Your task to perform on an android device: show emergency info Image 0: 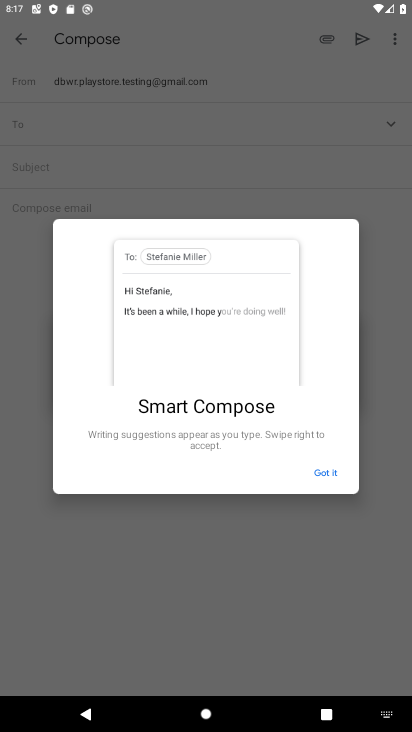
Step 0: press home button
Your task to perform on an android device: show emergency info Image 1: 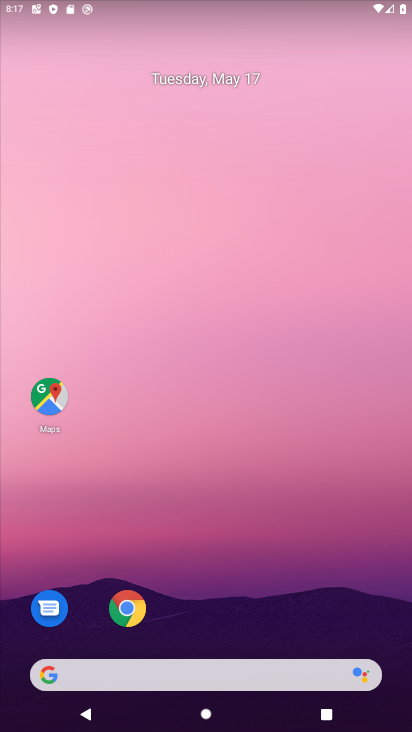
Step 1: drag from (185, 639) to (186, 2)
Your task to perform on an android device: show emergency info Image 2: 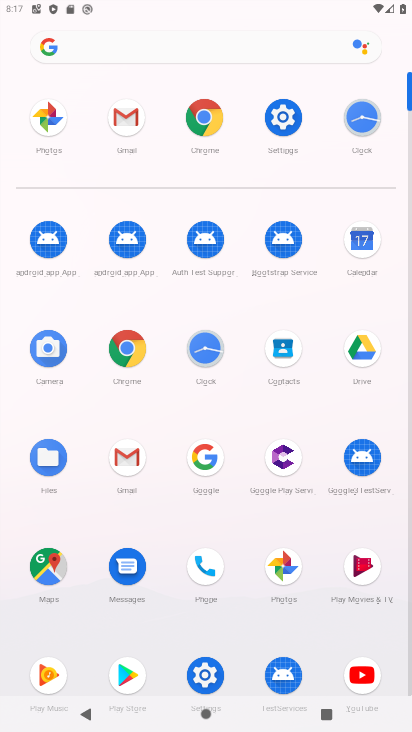
Step 2: click (287, 110)
Your task to perform on an android device: show emergency info Image 3: 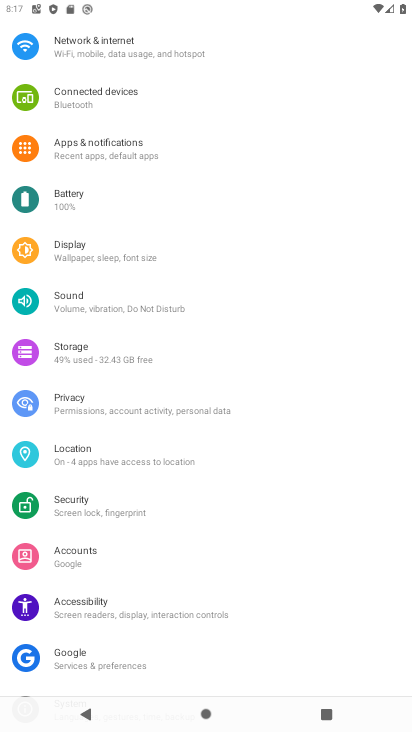
Step 3: drag from (164, 676) to (169, 347)
Your task to perform on an android device: show emergency info Image 4: 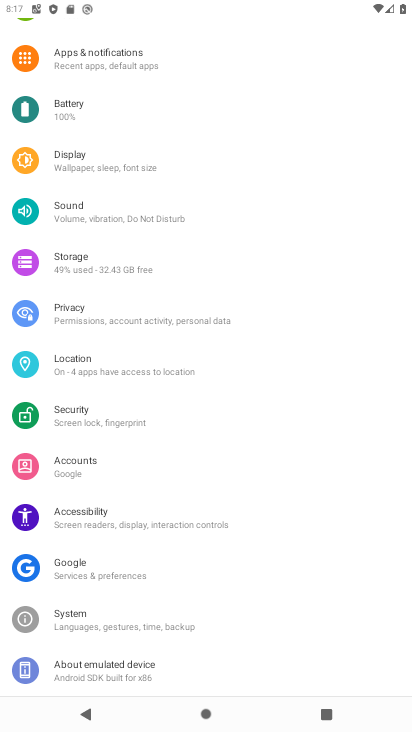
Step 4: click (117, 681)
Your task to perform on an android device: show emergency info Image 5: 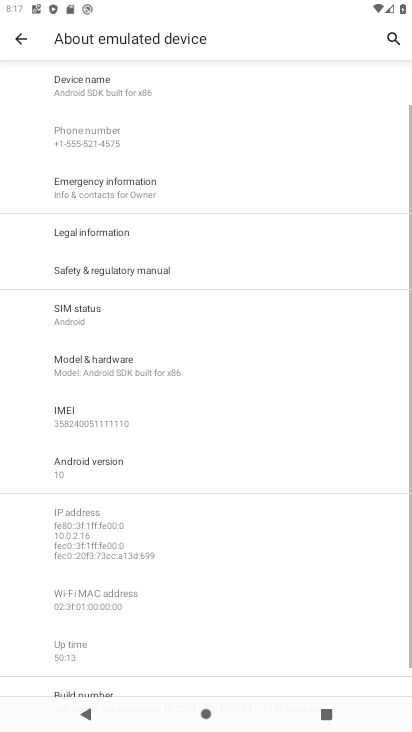
Step 5: click (141, 195)
Your task to perform on an android device: show emergency info Image 6: 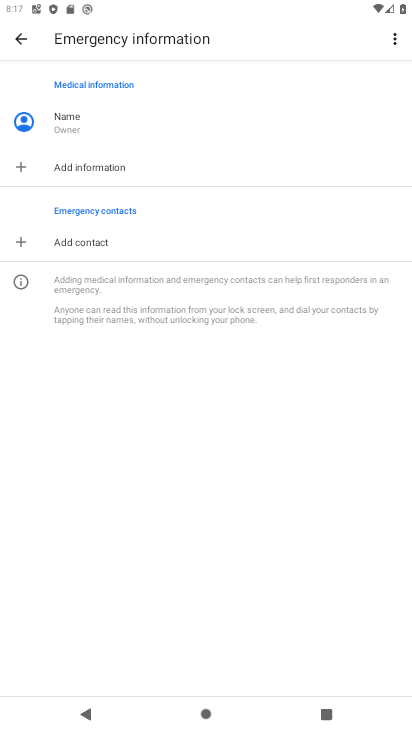
Step 6: task complete